Your task to perform on an android device: turn off location Image 0: 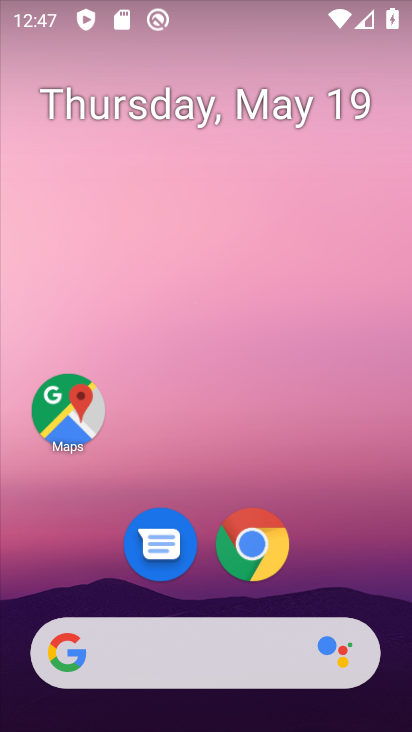
Step 0: press home button
Your task to perform on an android device: turn off location Image 1: 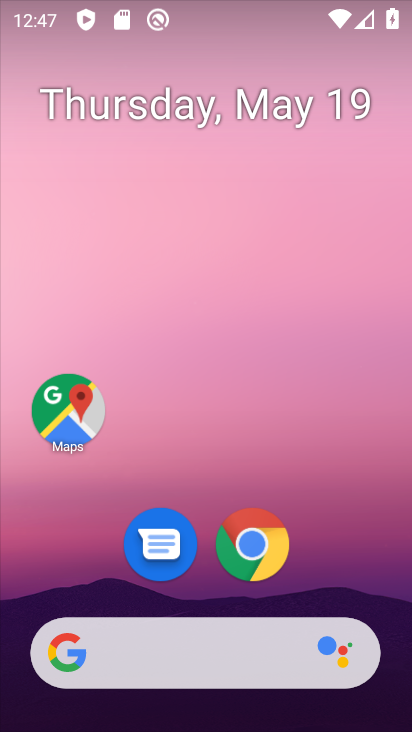
Step 1: drag from (372, 540) to (382, 192)
Your task to perform on an android device: turn off location Image 2: 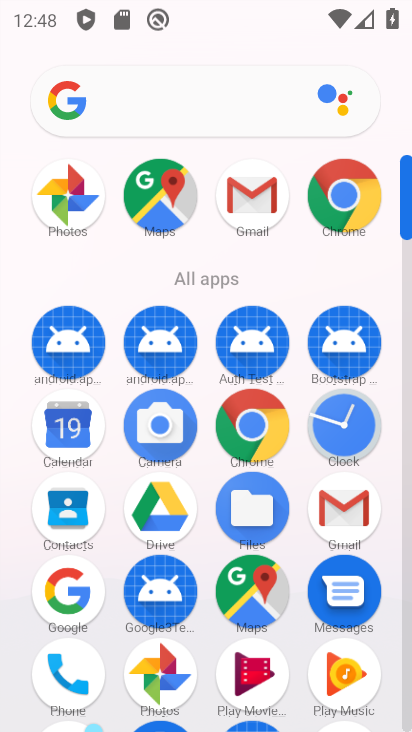
Step 2: click (405, 721)
Your task to perform on an android device: turn off location Image 3: 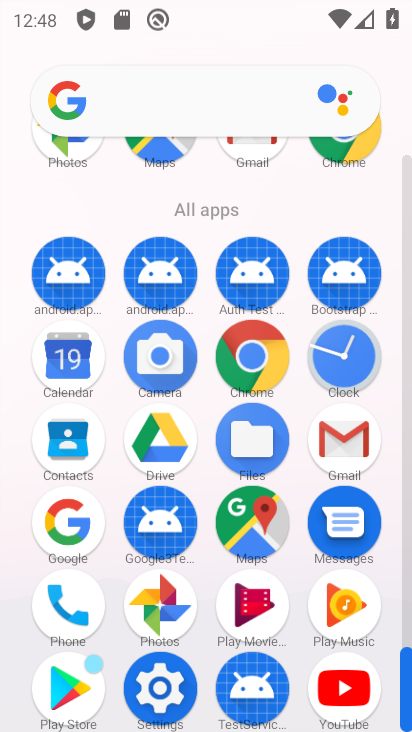
Step 3: click (141, 655)
Your task to perform on an android device: turn off location Image 4: 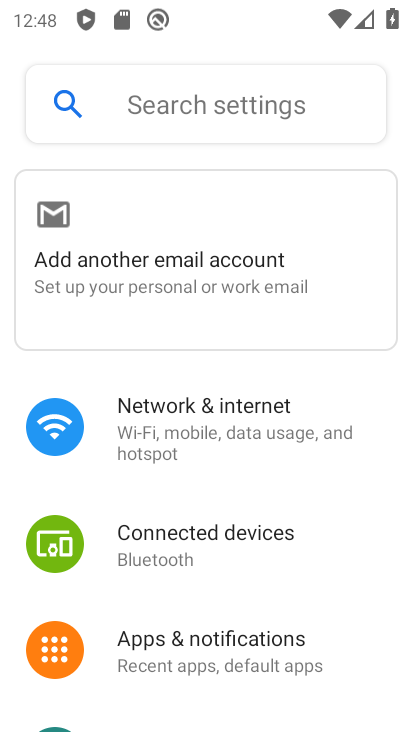
Step 4: drag from (278, 633) to (294, 61)
Your task to perform on an android device: turn off location Image 5: 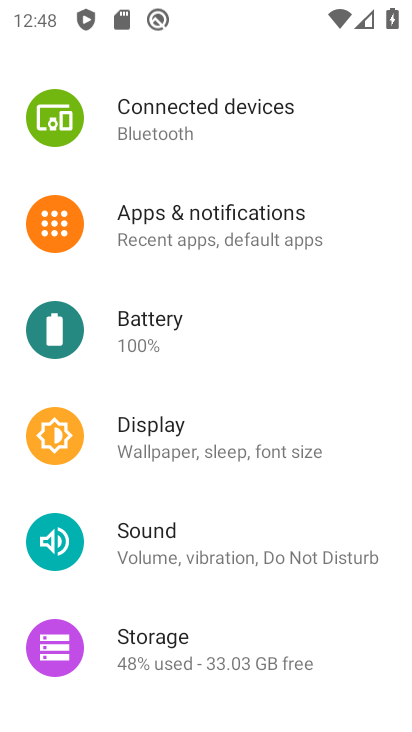
Step 5: drag from (276, 639) to (270, 161)
Your task to perform on an android device: turn off location Image 6: 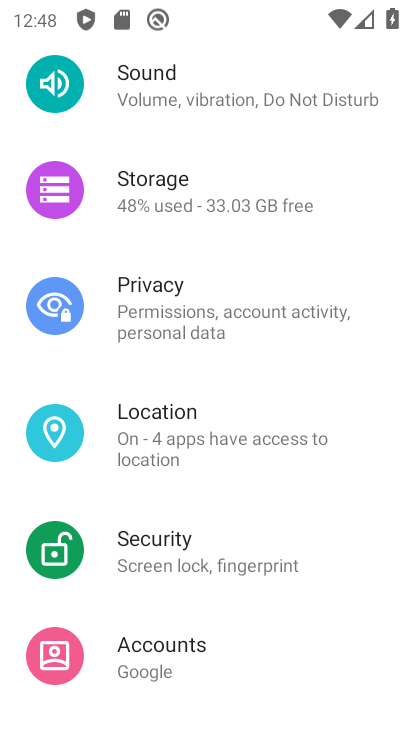
Step 6: drag from (166, 601) to (162, 263)
Your task to perform on an android device: turn off location Image 7: 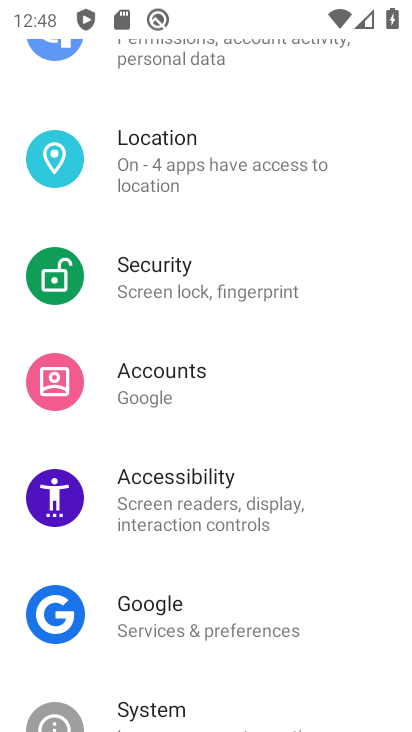
Step 7: click (265, 126)
Your task to perform on an android device: turn off location Image 8: 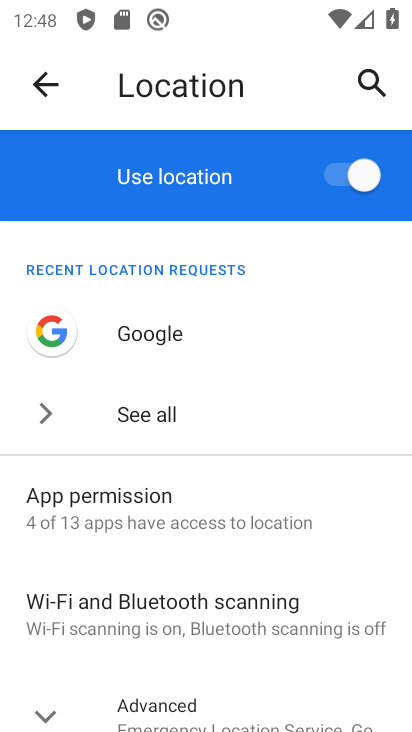
Step 8: click (354, 184)
Your task to perform on an android device: turn off location Image 9: 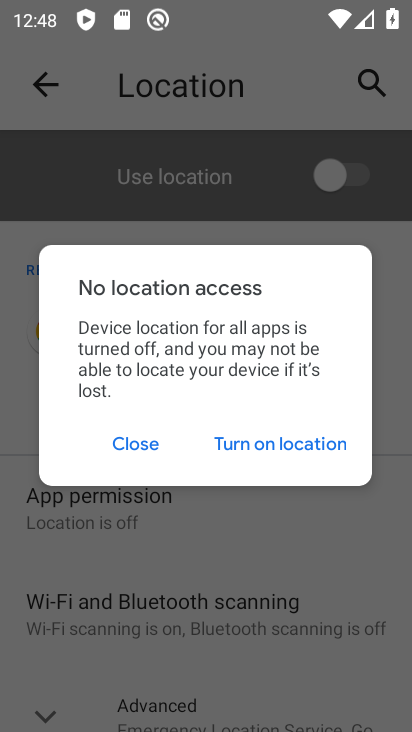
Step 9: click (267, 444)
Your task to perform on an android device: turn off location Image 10: 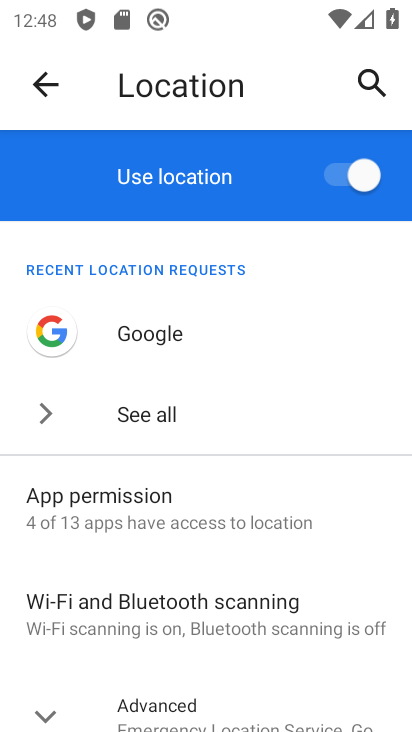
Step 10: click (378, 193)
Your task to perform on an android device: turn off location Image 11: 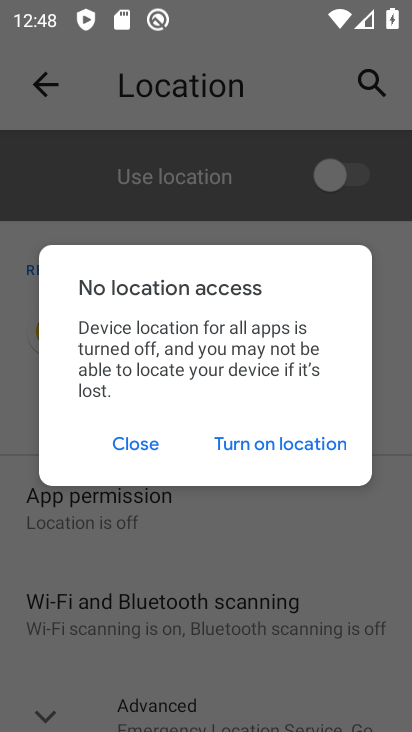
Step 11: click (111, 420)
Your task to perform on an android device: turn off location Image 12: 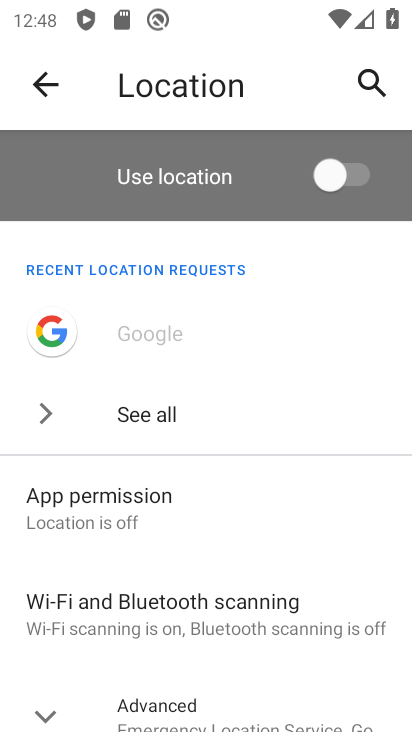
Step 12: task complete